Your task to perform on an android device: delete a single message in the gmail app Image 0: 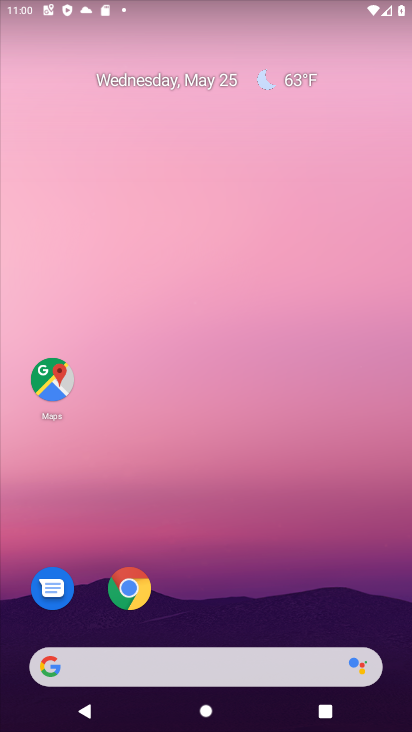
Step 0: drag from (221, 600) to (167, 84)
Your task to perform on an android device: delete a single message in the gmail app Image 1: 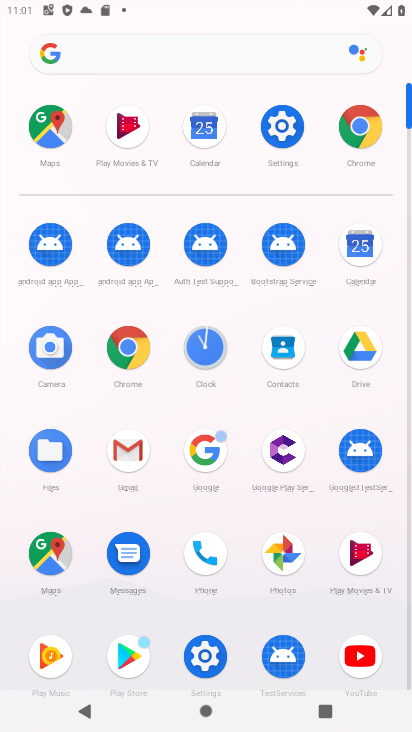
Step 1: click (127, 454)
Your task to perform on an android device: delete a single message in the gmail app Image 2: 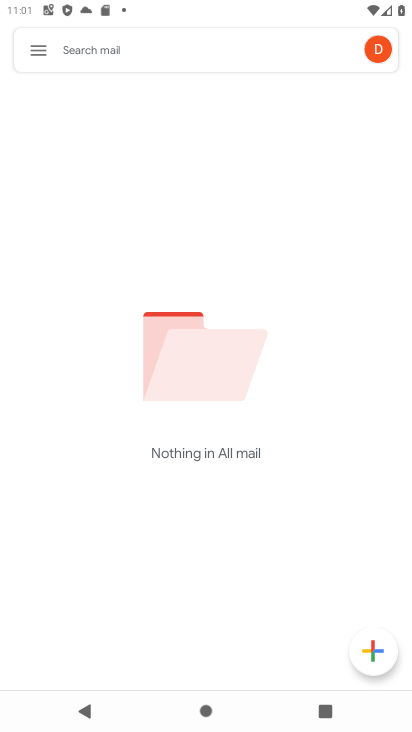
Step 2: task complete